Your task to perform on an android device: Open Google Image 0: 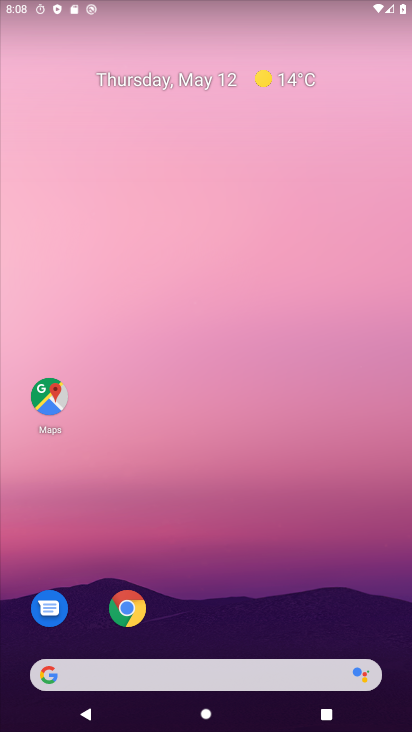
Step 0: drag from (207, 628) to (243, 124)
Your task to perform on an android device: Open Google Image 1: 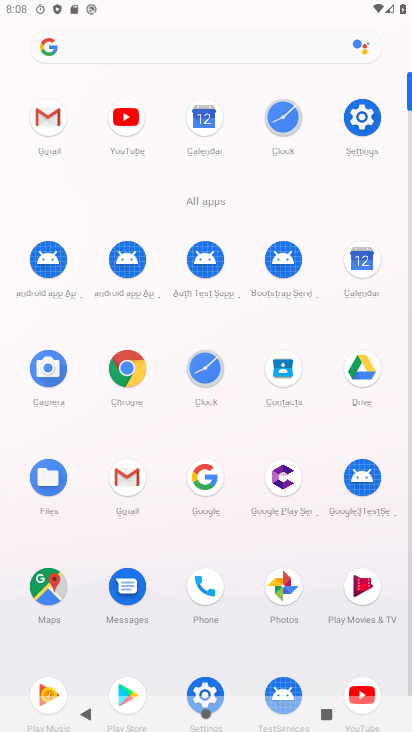
Step 1: click (200, 479)
Your task to perform on an android device: Open Google Image 2: 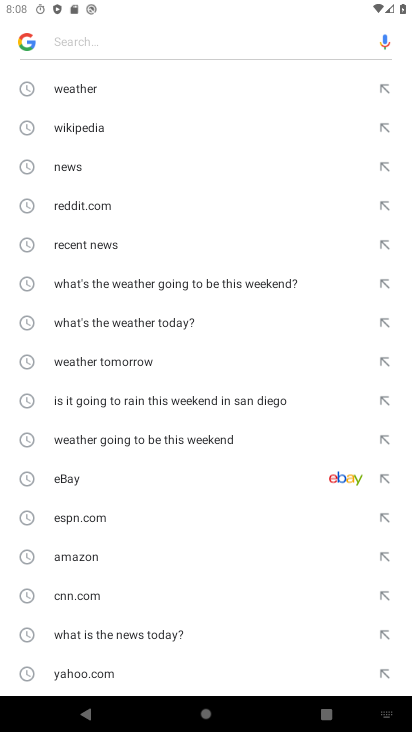
Step 2: task complete